Your task to perform on an android device: turn off improve location accuracy Image 0: 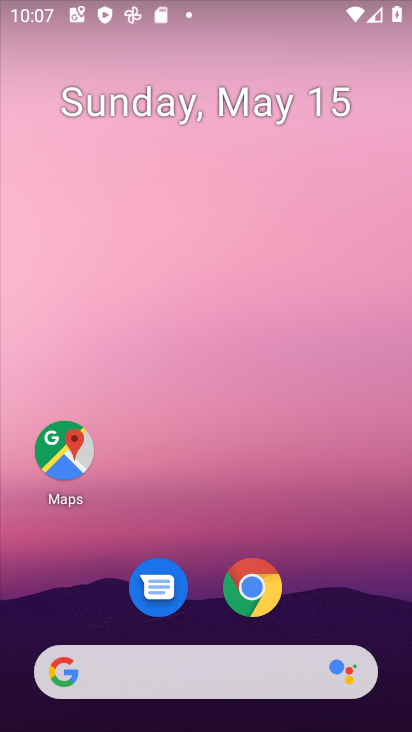
Step 0: drag from (388, 652) to (305, 80)
Your task to perform on an android device: turn off improve location accuracy Image 1: 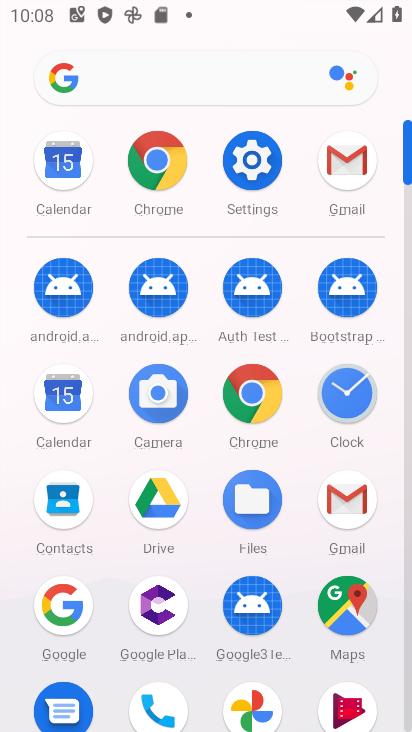
Step 1: click (240, 175)
Your task to perform on an android device: turn off improve location accuracy Image 2: 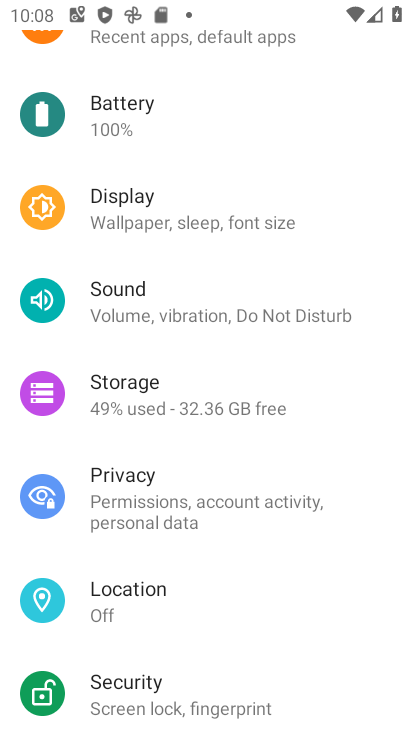
Step 2: click (180, 593)
Your task to perform on an android device: turn off improve location accuracy Image 3: 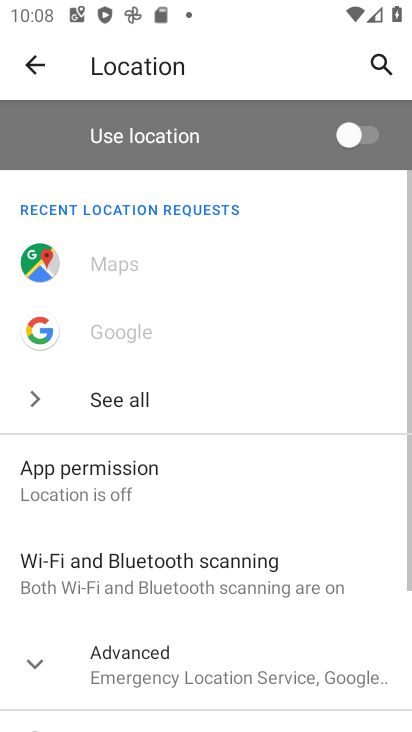
Step 3: click (180, 647)
Your task to perform on an android device: turn off improve location accuracy Image 4: 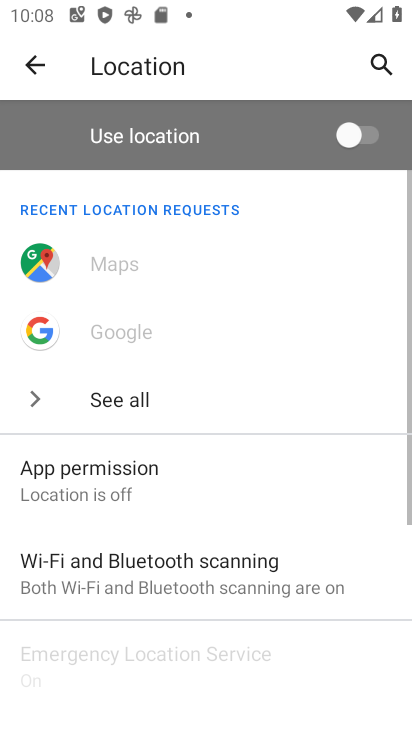
Step 4: drag from (181, 587) to (214, 206)
Your task to perform on an android device: turn off improve location accuracy Image 5: 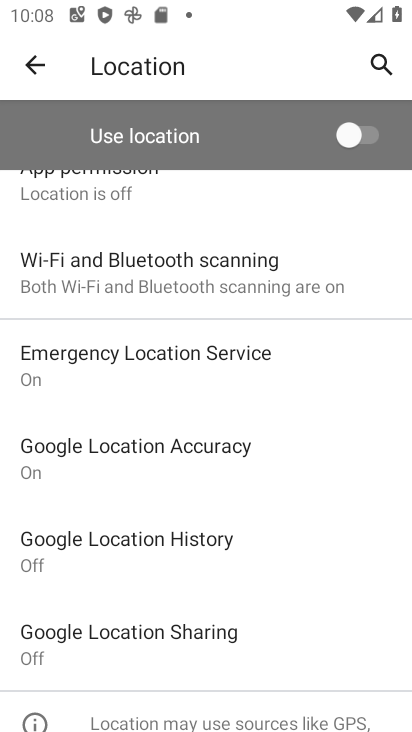
Step 5: click (191, 449)
Your task to perform on an android device: turn off improve location accuracy Image 6: 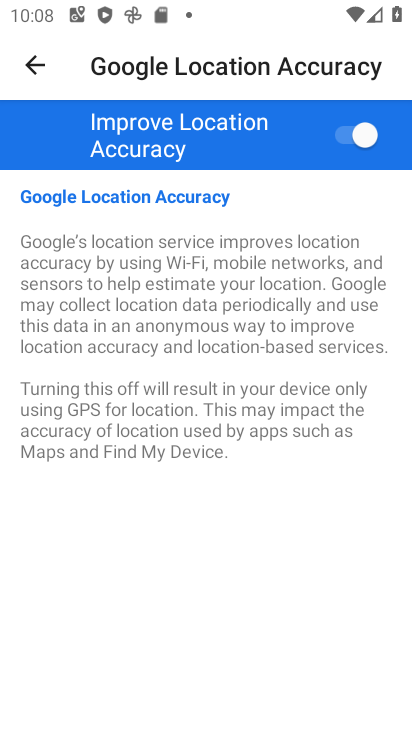
Step 6: click (379, 148)
Your task to perform on an android device: turn off improve location accuracy Image 7: 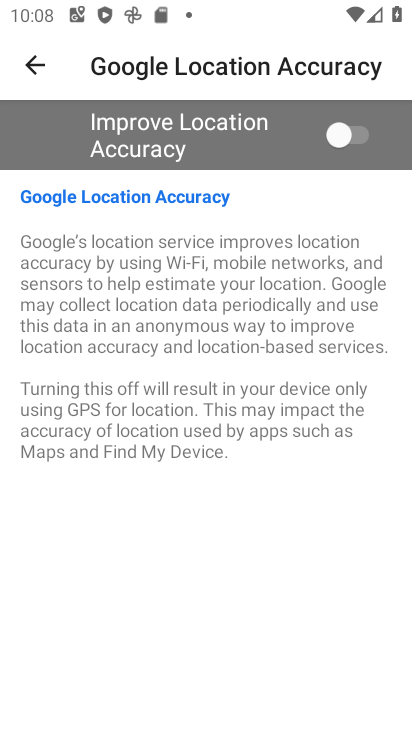
Step 7: task complete